Your task to perform on an android device: visit the assistant section in the google photos Image 0: 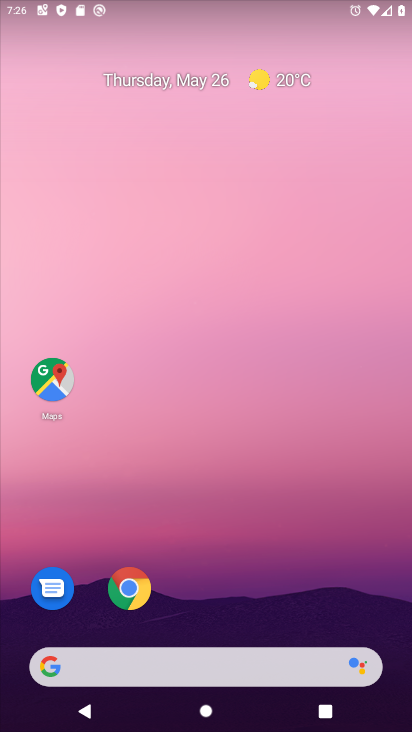
Step 0: drag from (340, 605) to (282, 1)
Your task to perform on an android device: visit the assistant section in the google photos Image 1: 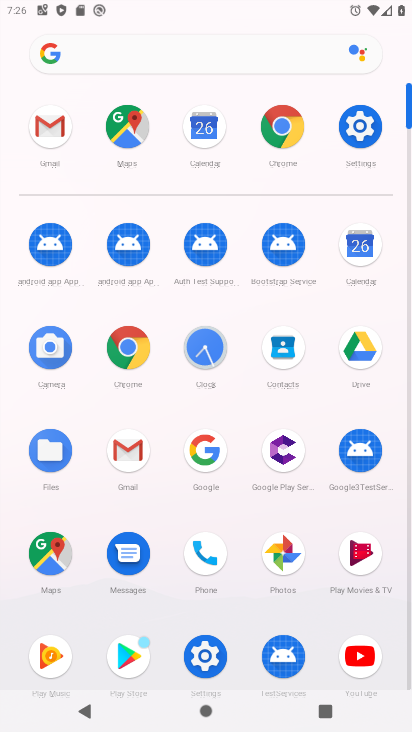
Step 1: click (275, 563)
Your task to perform on an android device: visit the assistant section in the google photos Image 2: 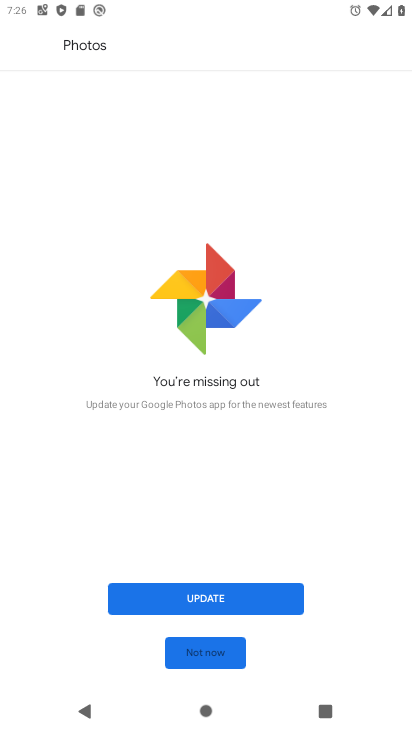
Step 2: click (227, 599)
Your task to perform on an android device: visit the assistant section in the google photos Image 3: 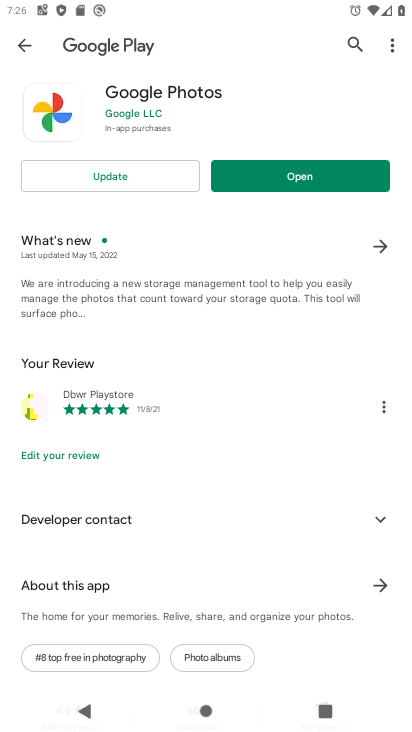
Step 3: click (137, 176)
Your task to perform on an android device: visit the assistant section in the google photos Image 4: 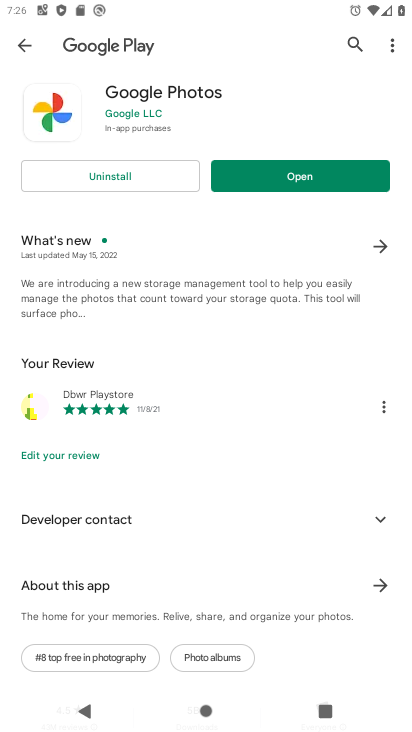
Step 4: click (313, 171)
Your task to perform on an android device: visit the assistant section in the google photos Image 5: 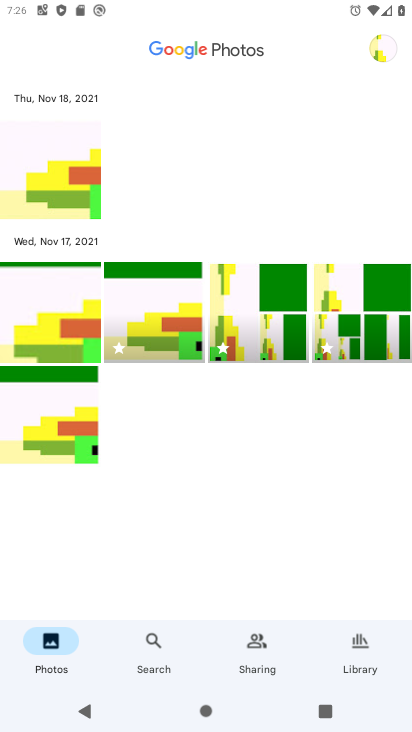
Step 5: task complete